Your task to perform on an android device: allow cookies in the chrome app Image 0: 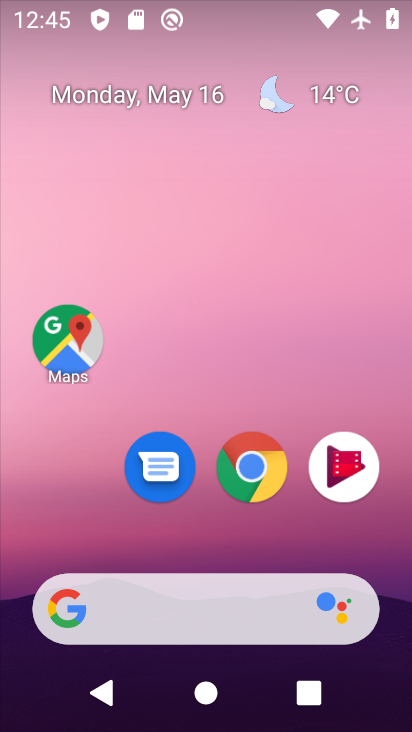
Step 0: click (241, 453)
Your task to perform on an android device: allow cookies in the chrome app Image 1: 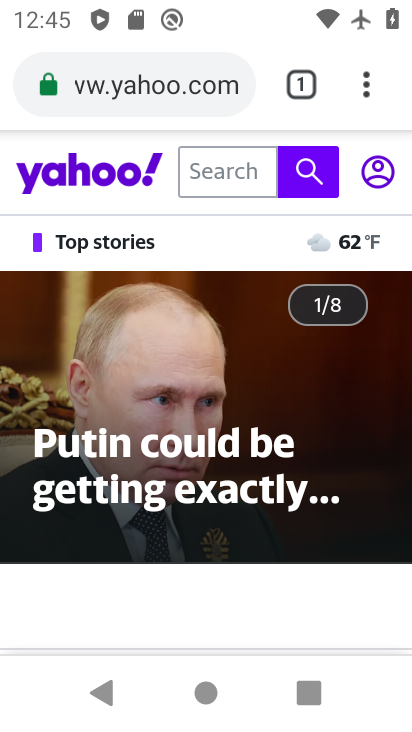
Step 1: click (379, 82)
Your task to perform on an android device: allow cookies in the chrome app Image 2: 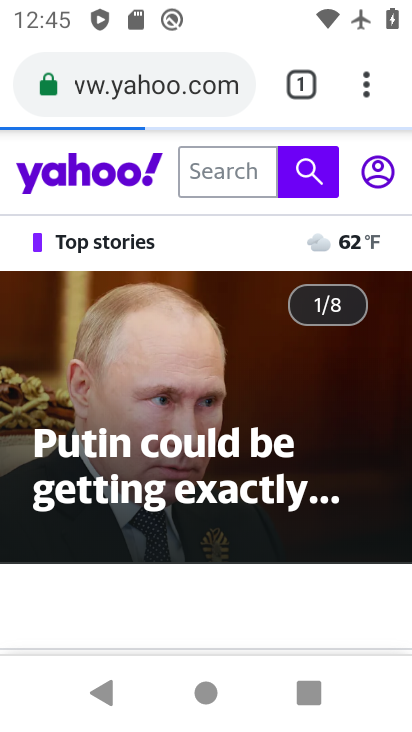
Step 2: click (359, 86)
Your task to perform on an android device: allow cookies in the chrome app Image 3: 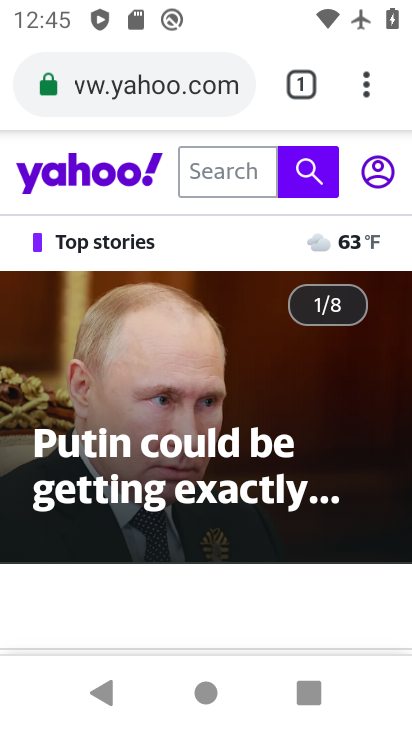
Step 3: click (361, 86)
Your task to perform on an android device: allow cookies in the chrome app Image 4: 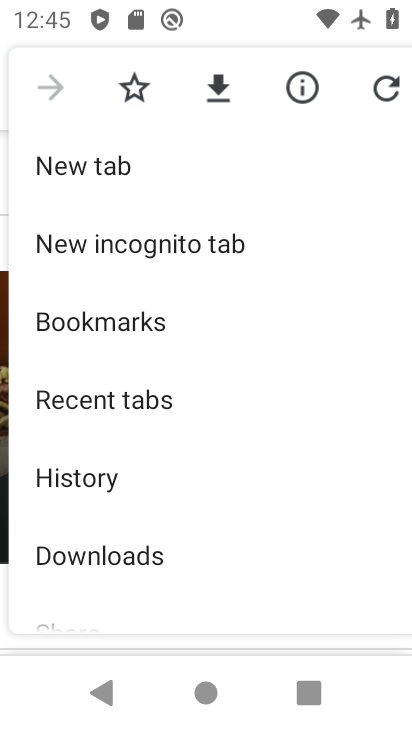
Step 4: drag from (126, 622) to (231, 185)
Your task to perform on an android device: allow cookies in the chrome app Image 5: 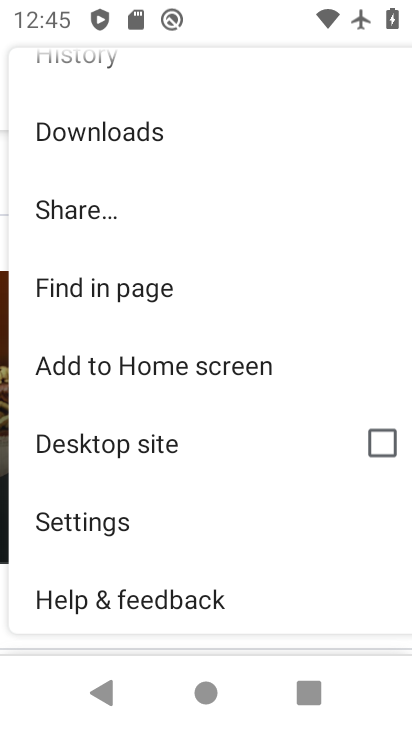
Step 5: click (132, 515)
Your task to perform on an android device: allow cookies in the chrome app Image 6: 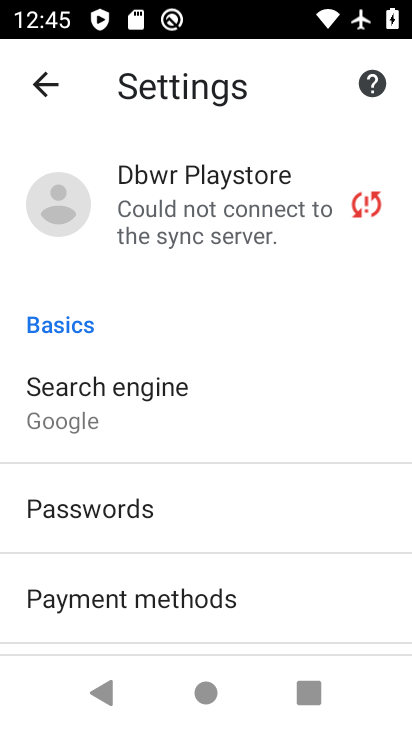
Step 6: drag from (257, 601) to (356, 287)
Your task to perform on an android device: allow cookies in the chrome app Image 7: 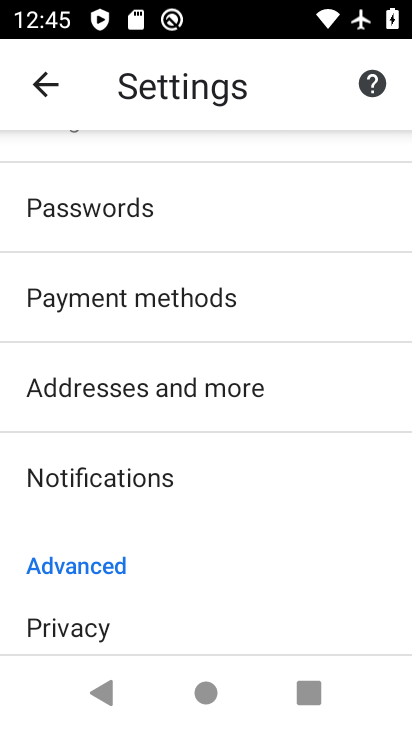
Step 7: drag from (176, 633) to (276, 328)
Your task to perform on an android device: allow cookies in the chrome app Image 8: 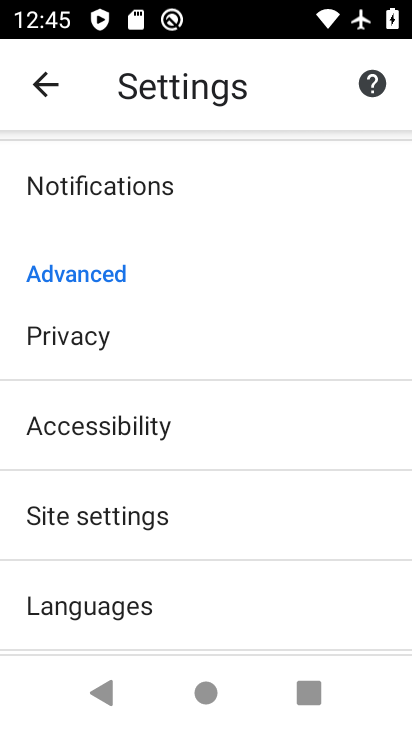
Step 8: click (129, 504)
Your task to perform on an android device: allow cookies in the chrome app Image 9: 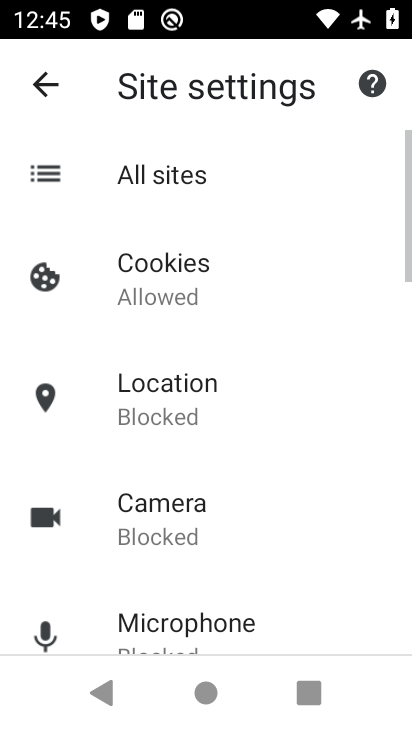
Step 9: click (170, 284)
Your task to perform on an android device: allow cookies in the chrome app Image 10: 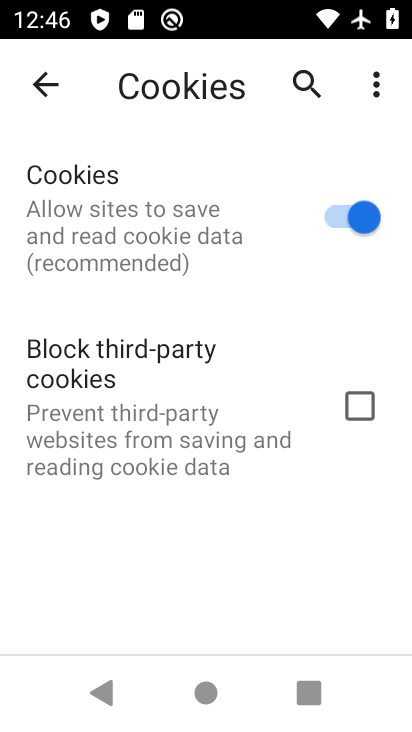
Step 10: task complete